Your task to perform on an android device: check google app version Image 0: 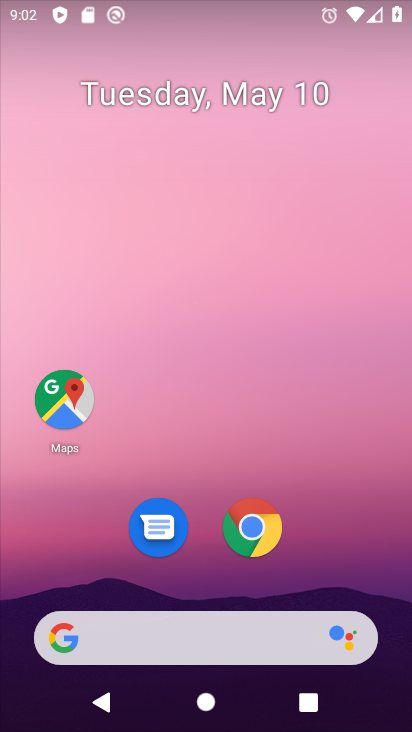
Step 0: drag from (191, 613) to (118, 0)
Your task to perform on an android device: check google app version Image 1: 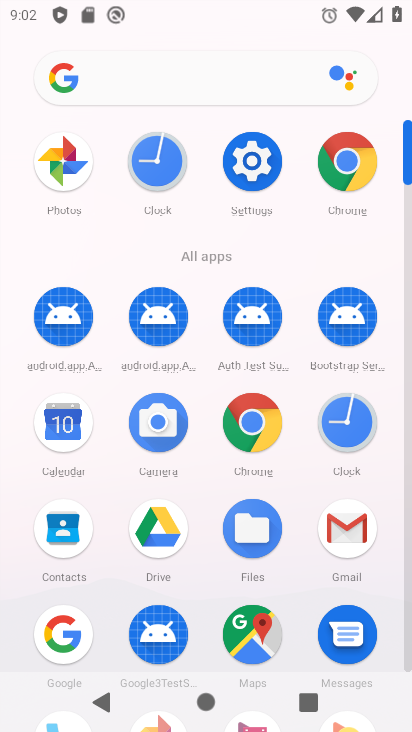
Step 1: click (61, 626)
Your task to perform on an android device: check google app version Image 2: 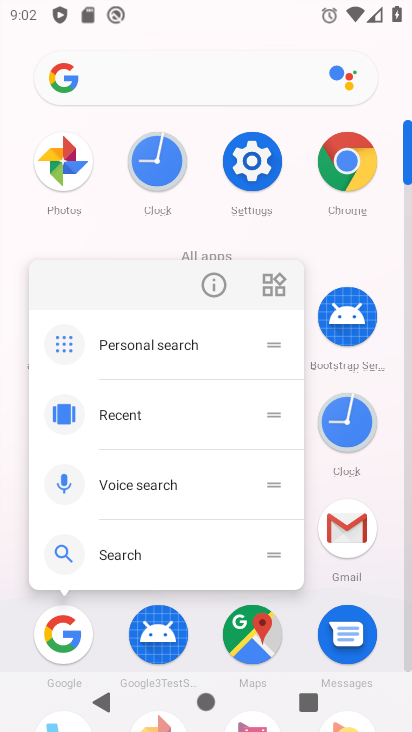
Step 2: click (205, 291)
Your task to perform on an android device: check google app version Image 3: 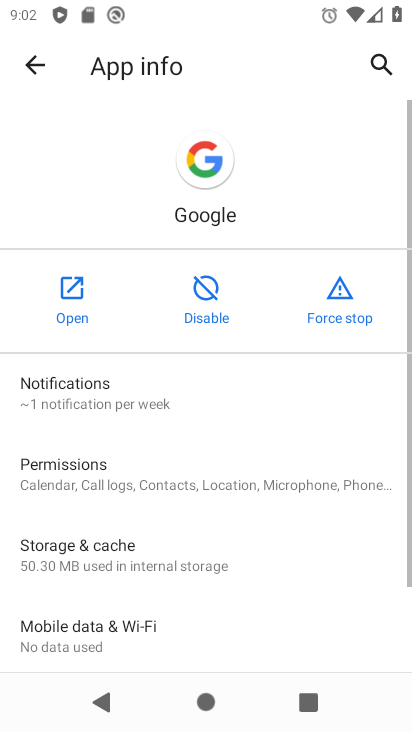
Step 3: drag from (215, 551) to (224, 12)
Your task to perform on an android device: check google app version Image 4: 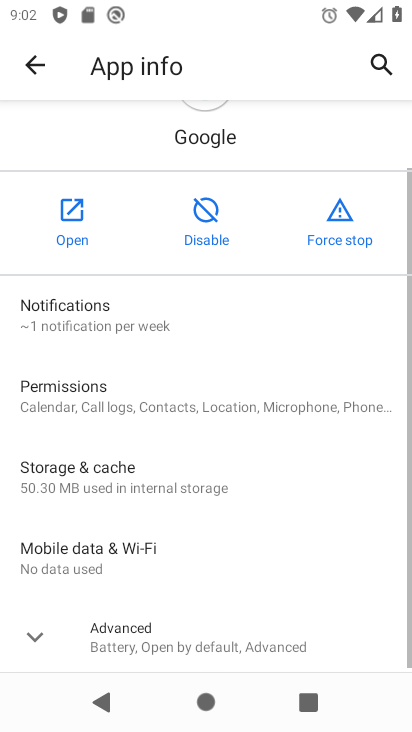
Step 4: click (196, 626)
Your task to perform on an android device: check google app version Image 5: 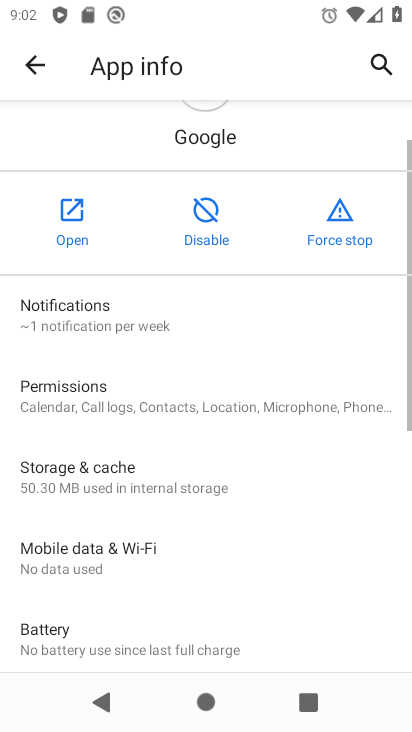
Step 5: task complete